Your task to perform on an android device: Open Google Maps Image 0: 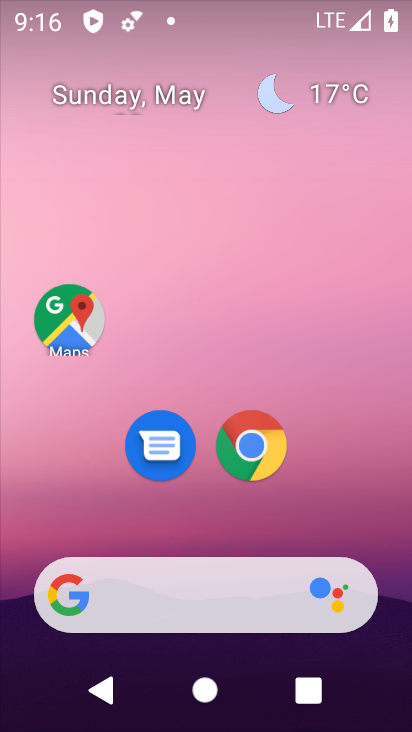
Step 0: click (289, 155)
Your task to perform on an android device: Open Google Maps Image 1: 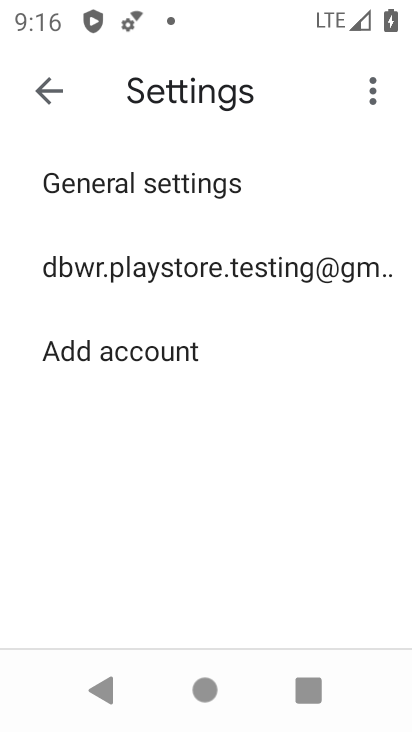
Step 1: press home button
Your task to perform on an android device: Open Google Maps Image 2: 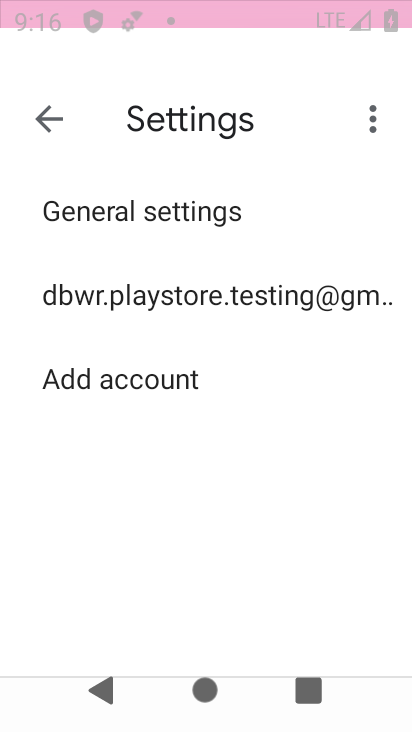
Step 2: drag from (223, 535) to (230, 65)
Your task to perform on an android device: Open Google Maps Image 3: 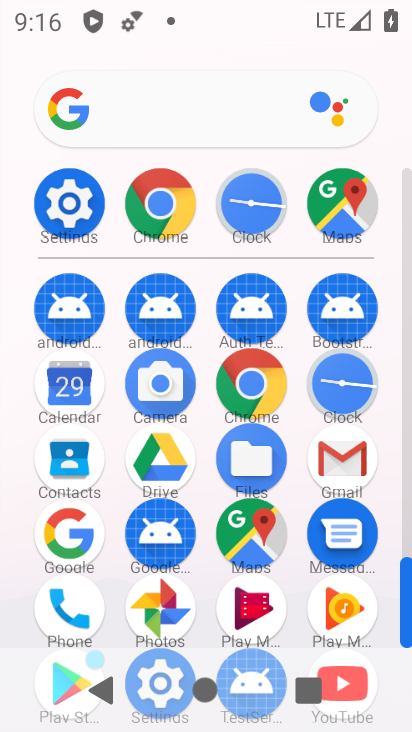
Step 3: click (239, 542)
Your task to perform on an android device: Open Google Maps Image 4: 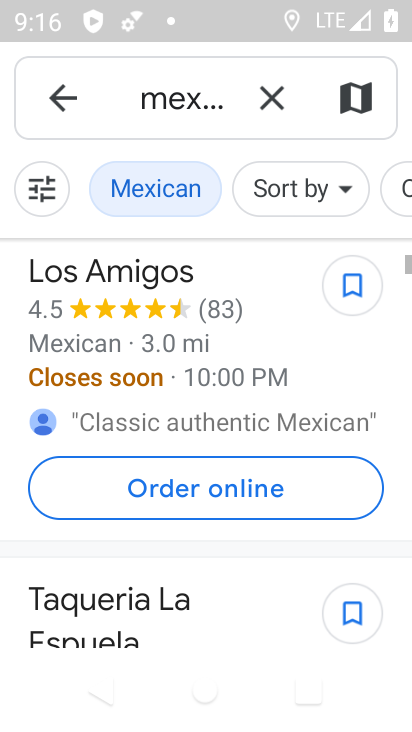
Step 4: task complete